Your task to perform on an android device: Is it going to rain tomorrow? Image 0: 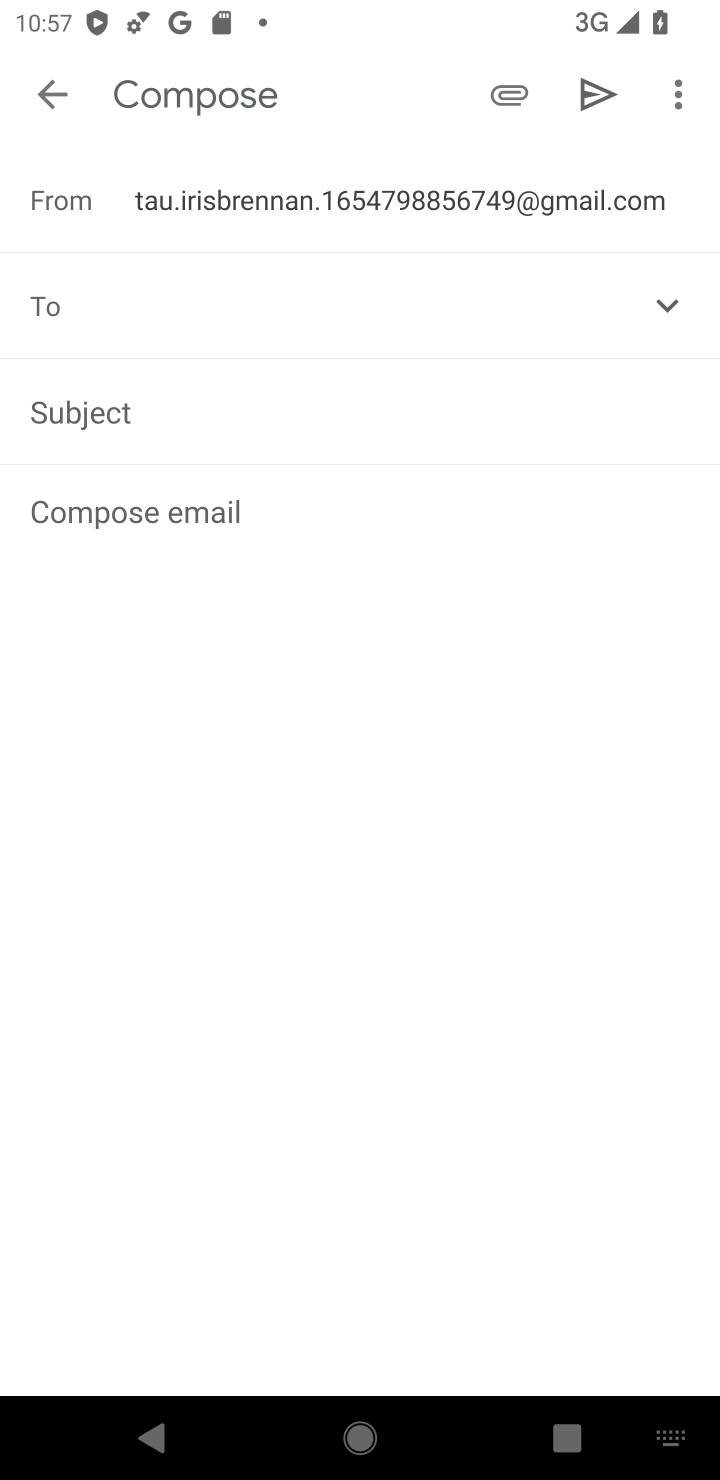
Step 0: press home button
Your task to perform on an android device: Is it going to rain tomorrow? Image 1: 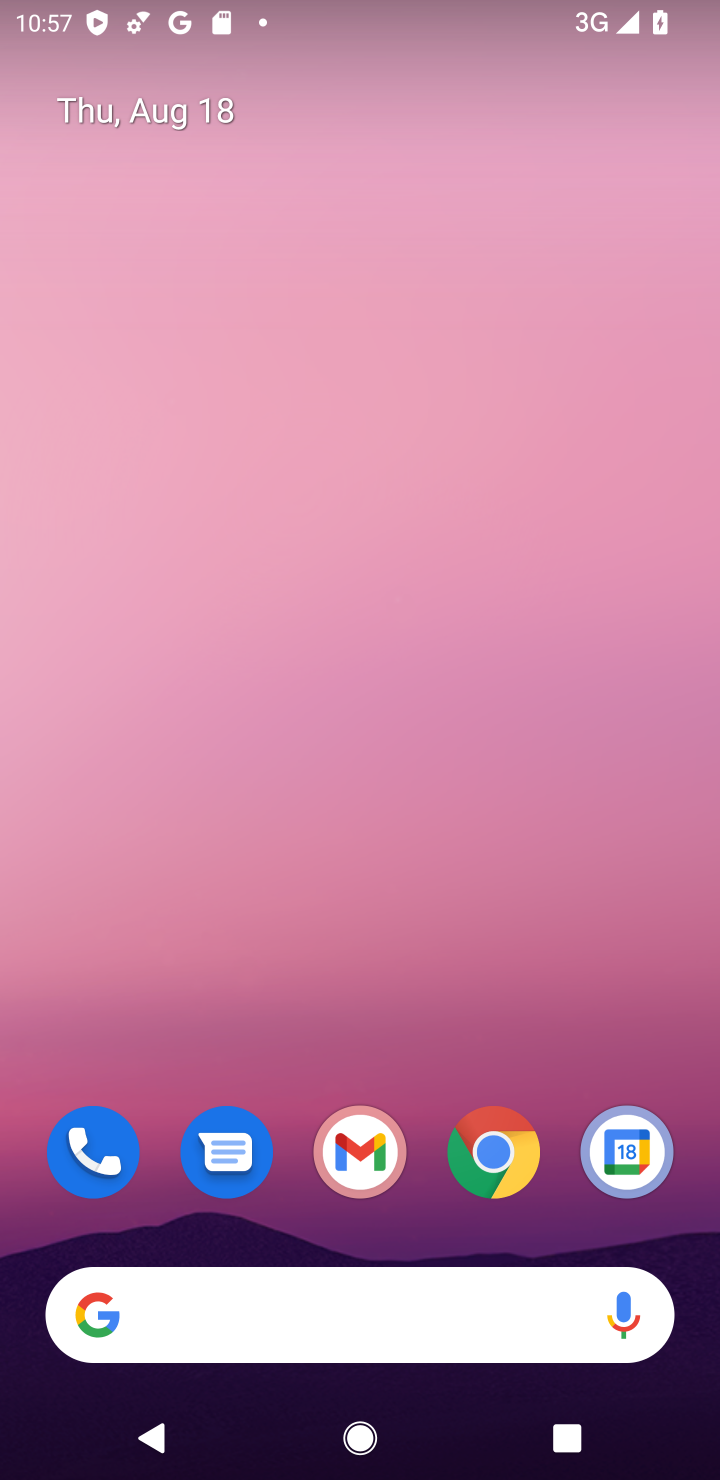
Step 1: click (480, 1302)
Your task to perform on an android device: Is it going to rain tomorrow? Image 2: 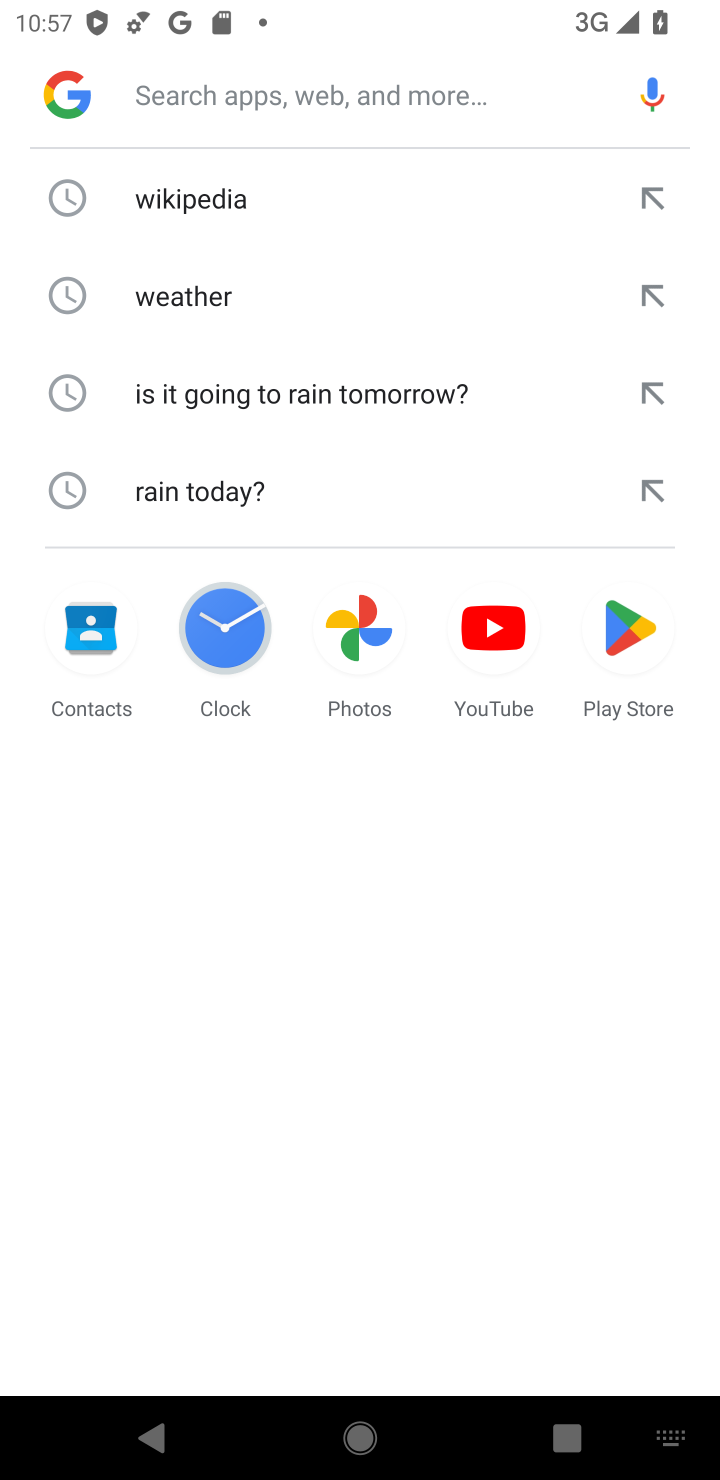
Step 2: click (198, 275)
Your task to perform on an android device: Is it going to rain tomorrow? Image 3: 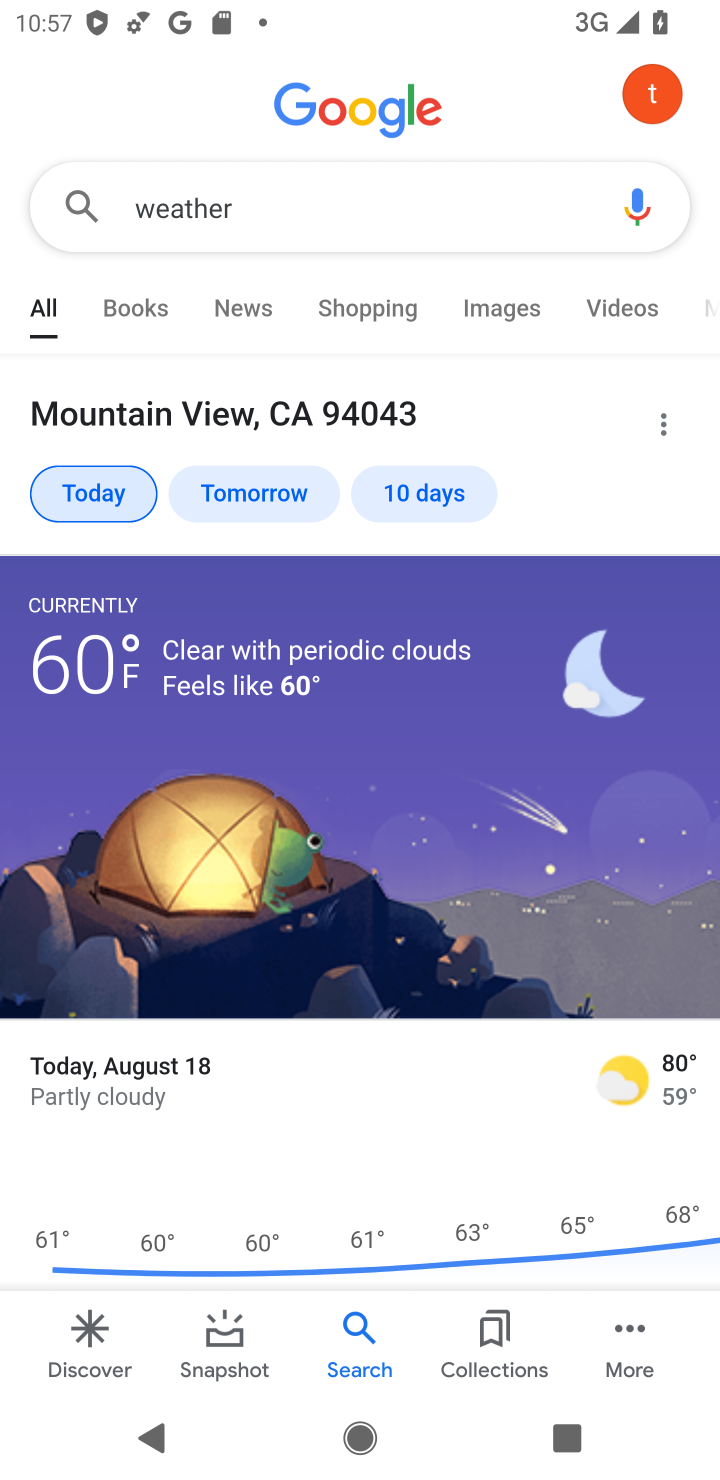
Step 3: click (242, 496)
Your task to perform on an android device: Is it going to rain tomorrow? Image 4: 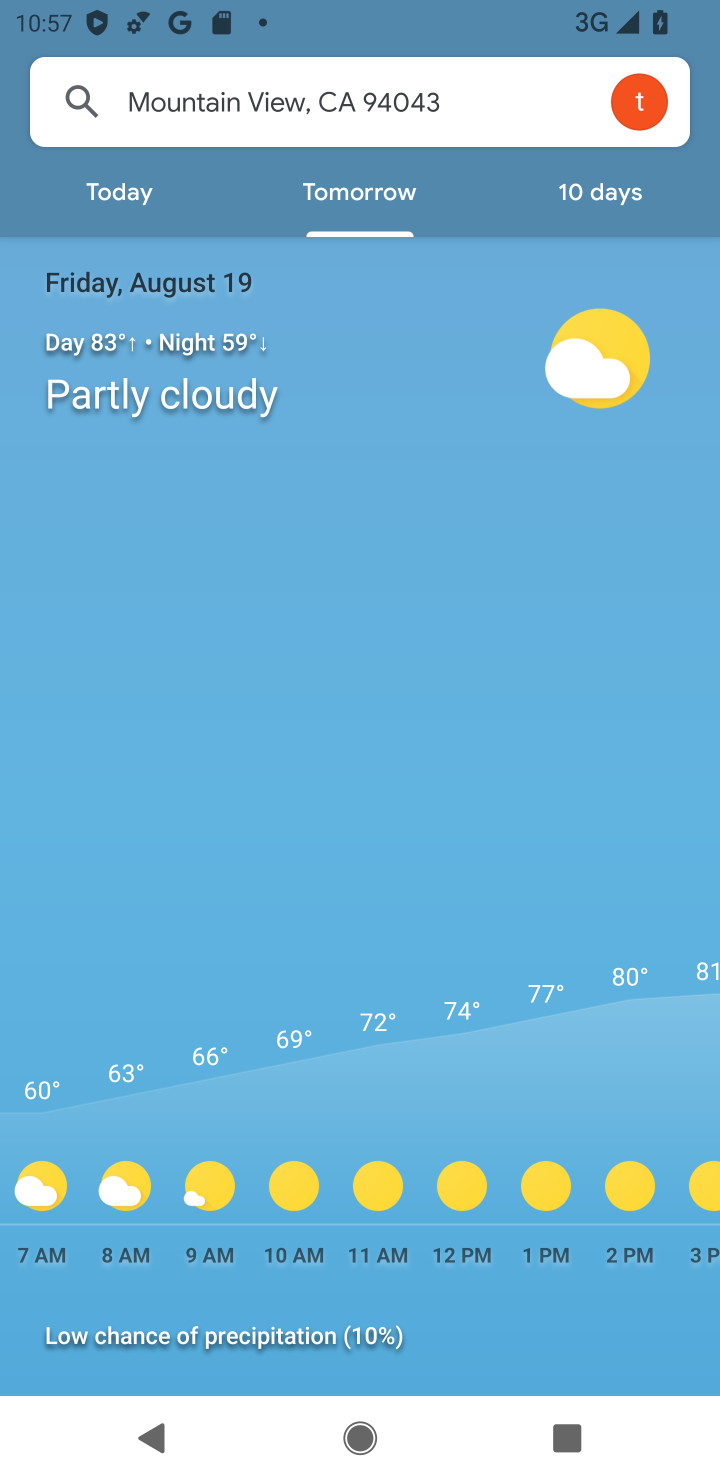
Step 4: task complete